Your task to perform on an android device: Find coffee shops on Maps Image 0: 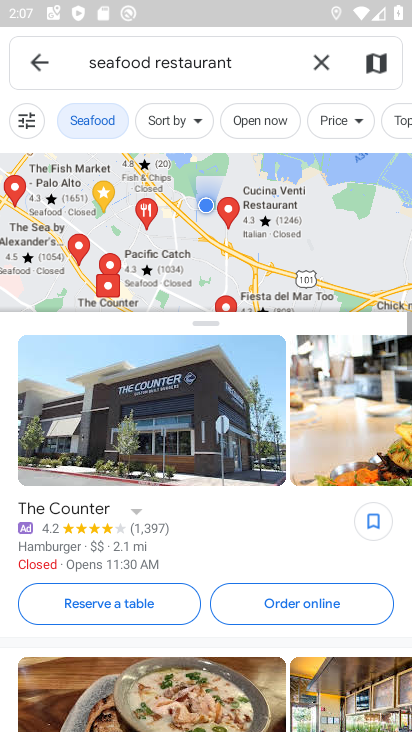
Step 0: press home button
Your task to perform on an android device: Find coffee shops on Maps Image 1: 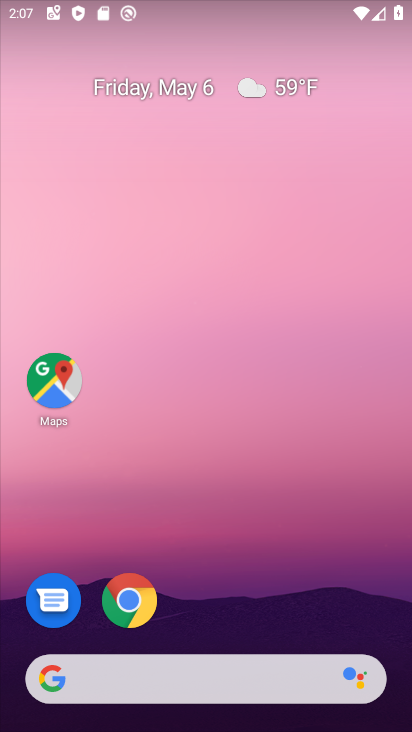
Step 1: click (63, 379)
Your task to perform on an android device: Find coffee shops on Maps Image 2: 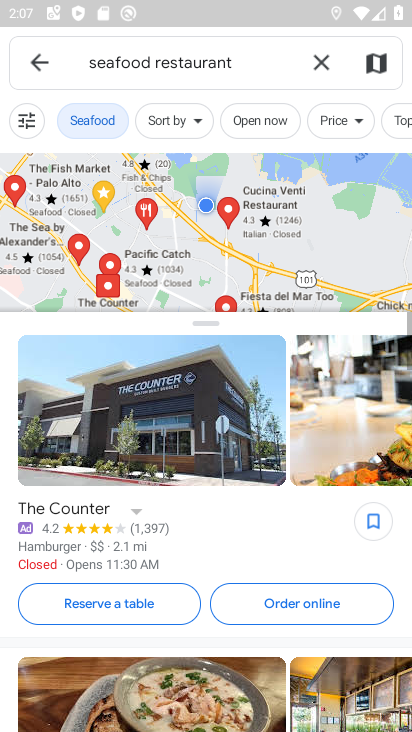
Step 2: click (311, 54)
Your task to perform on an android device: Find coffee shops on Maps Image 3: 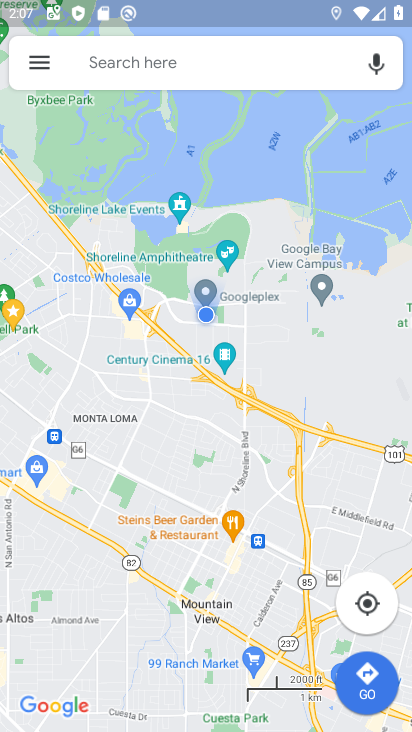
Step 3: click (217, 68)
Your task to perform on an android device: Find coffee shops on Maps Image 4: 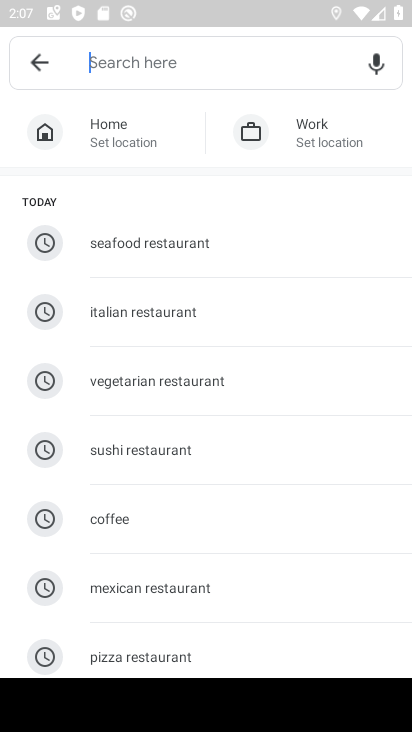
Step 4: type "coffee shop"
Your task to perform on an android device: Find coffee shops on Maps Image 5: 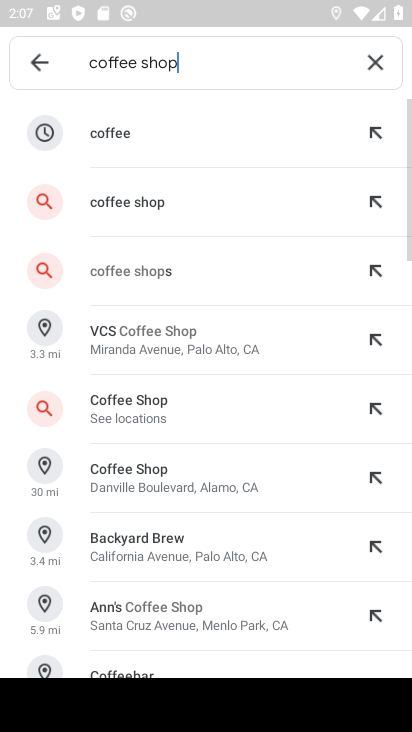
Step 5: click (151, 201)
Your task to perform on an android device: Find coffee shops on Maps Image 6: 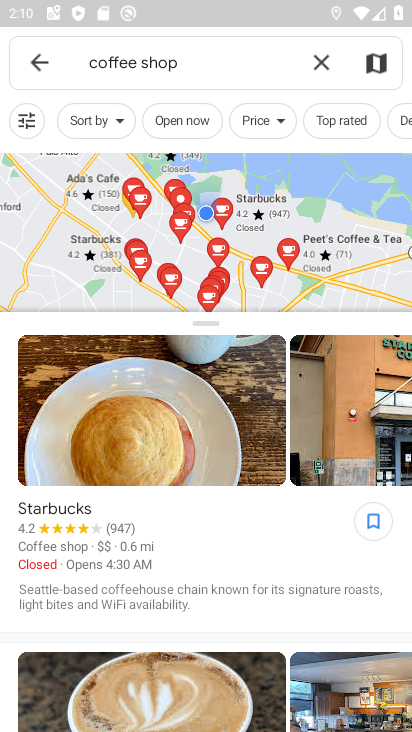
Step 6: task complete